Your task to perform on an android device: open app "Google Photos" (install if not already installed) Image 0: 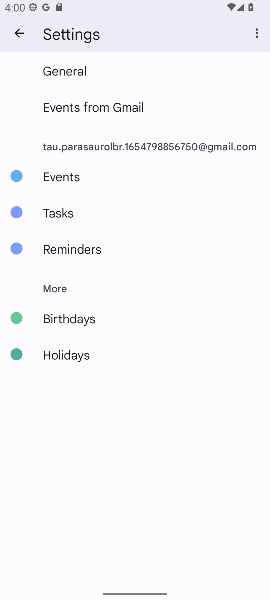
Step 0: press home button
Your task to perform on an android device: open app "Google Photos" (install if not already installed) Image 1: 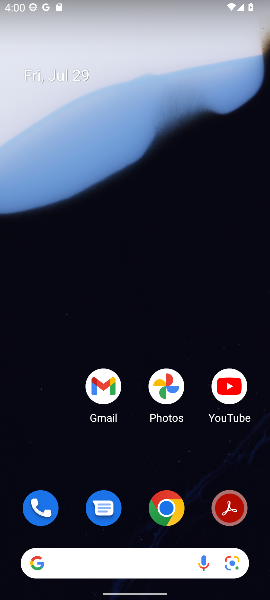
Step 1: drag from (230, 519) to (92, 57)
Your task to perform on an android device: open app "Google Photos" (install if not already installed) Image 2: 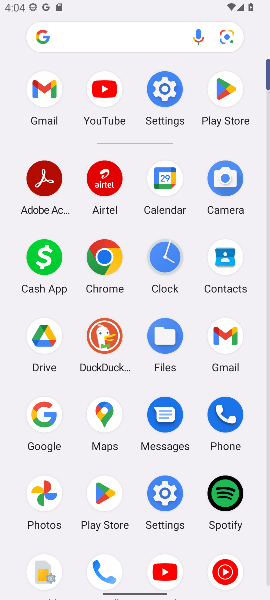
Step 2: click (229, 91)
Your task to perform on an android device: open app "Google Photos" (install if not already installed) Image 3: 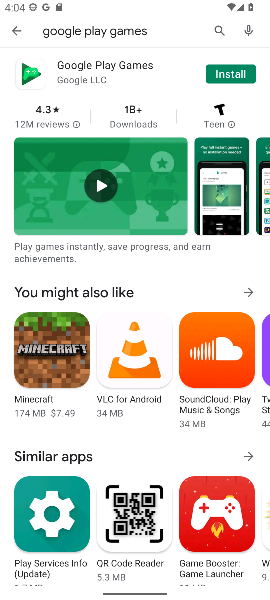
Step 3: press back button
Your task to perform on an android device: open app "Google Photos" (install if not already installed) Image 4: 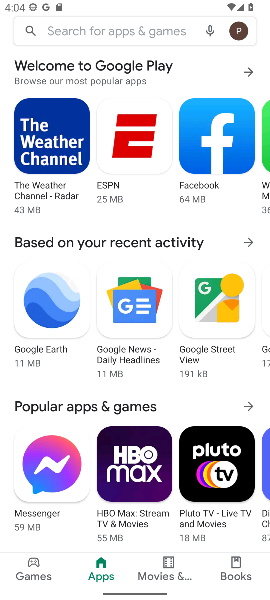
Step 4: click (92, 21)
Your task to perform on an android device: open app "Google Photos" (install if not already installed) Image 5: 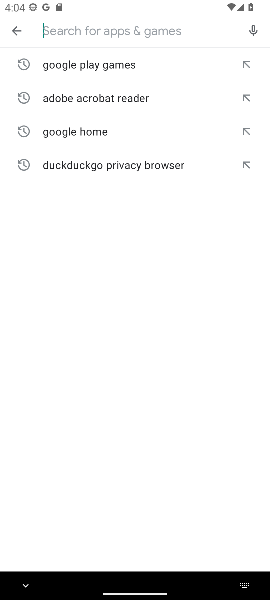
Step 5: type "Google Photos"
Your task to perform on an android device: open app "Google Photos" (install if not already installed) Image 6: 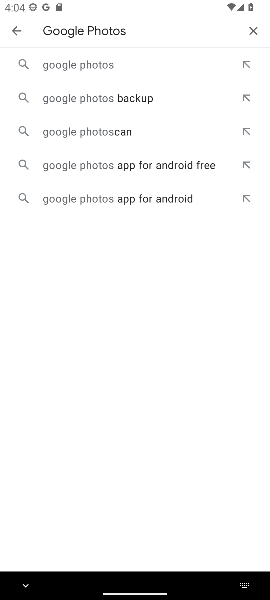
Step 6: click (108, 64)
Your task to perform on an android device: open app "Google Photos" (install if not already installed) Image 7: 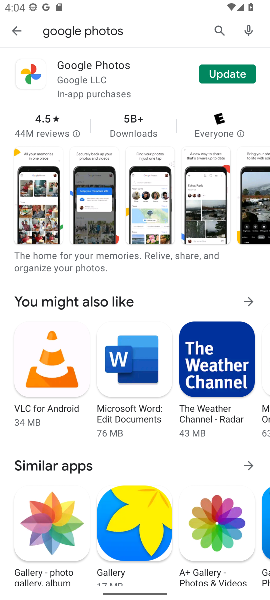
Step 7: click (211, 76)
Your task to perform on an android device: open app "Google Photos" (install if not already installed) Image 8: 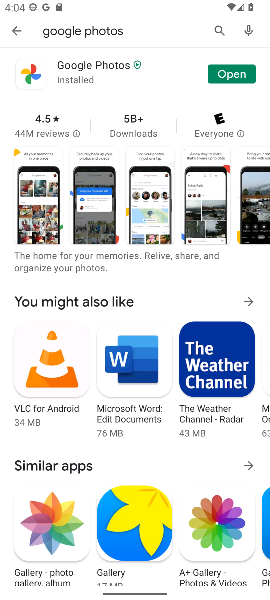
Step 8: task complete